Your task to perform on an android device: turn off sleep mode Image 0: 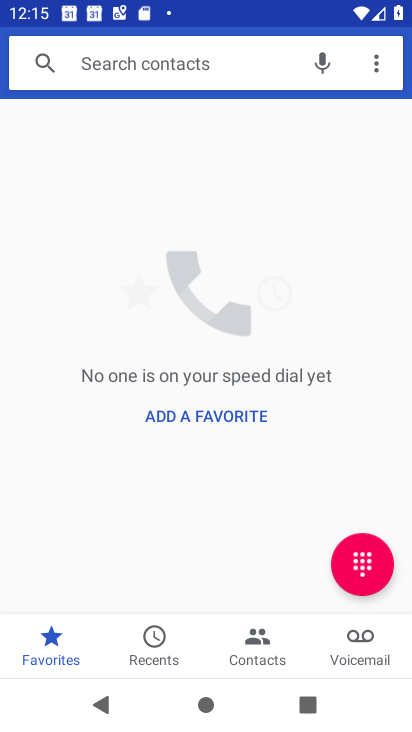
Step 0: press home button
Your task to perform on an android device: turn off sleep mode Image 1: 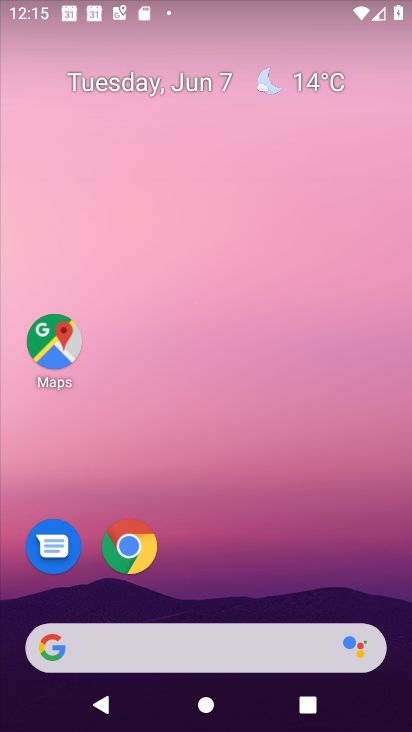
Step 1: drag from (229, 579) to (263, 172)
Your task to perform on an android device: turn off sleep mode Image 2: 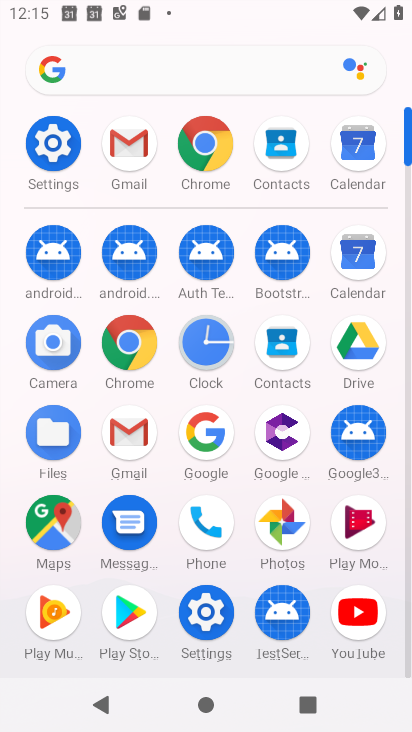
Step 2: click (59, 153)
Your task to perform on an android device: turn off sleep mode Image 3: 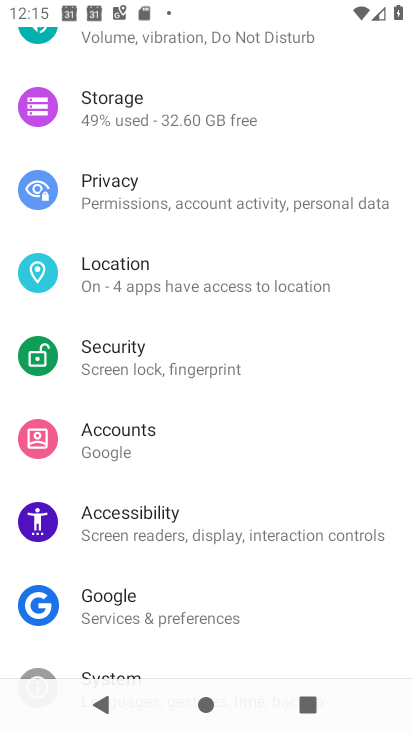
Step 3: drag from (128, 132) to (105, 577)
Your task to perform on an android device: turn off sleep mode Image 4: 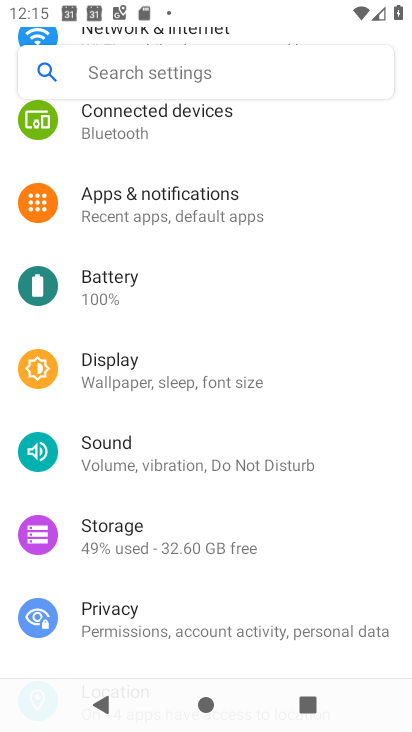
Step 4: drag from (193, 125) to (182, 310)
Your task to perform on an android device: turn off sleep mode Image 5: 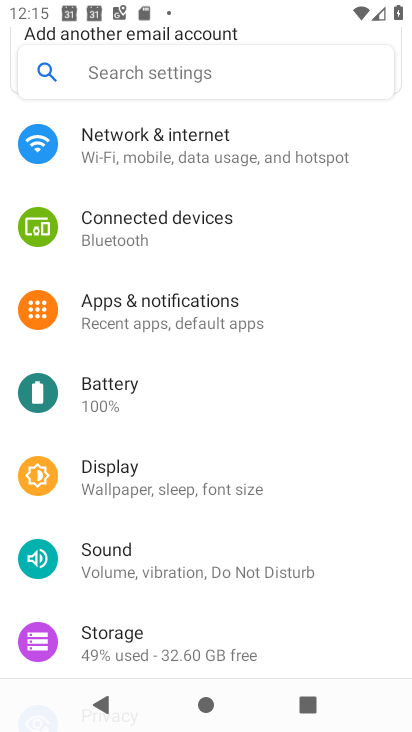
Step 5: click (184, 66)
Your task to perform on an android device: turn off sleep mode Image 6: 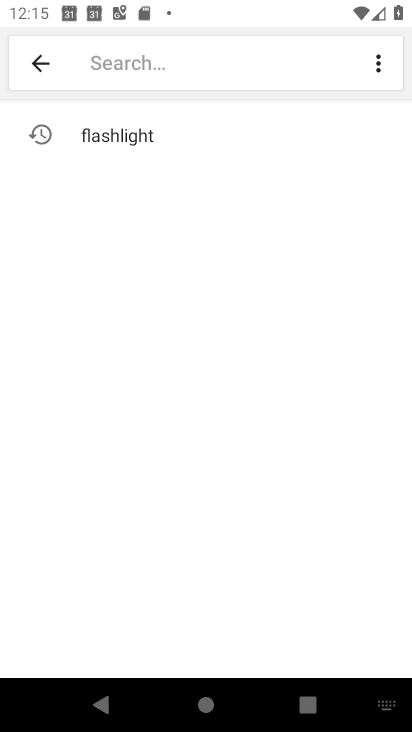
Step 6: type "sleep mode"
Your task to perform on an android device: turn off sleep mode Image 7: 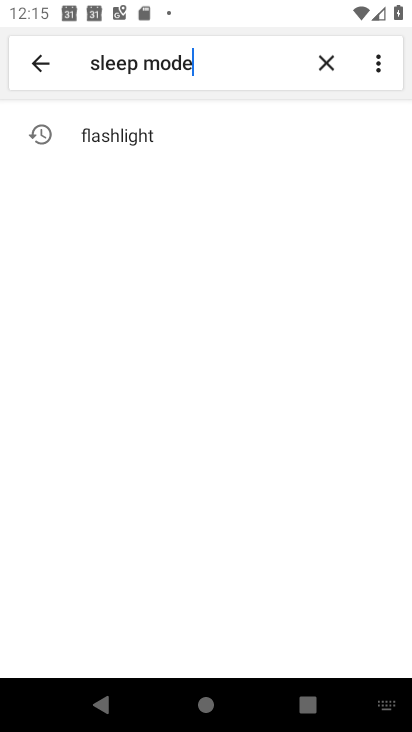
Step 7: click (169, 318)
Your task to perform on an android device: turn off sleep mode Image 8: 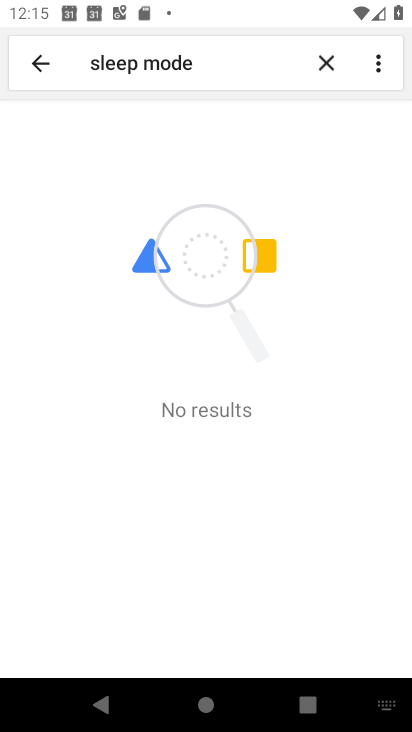
Step 8: task complete